Your task to perform on an android device: Open calendar and show me the second week of next month Image 0: 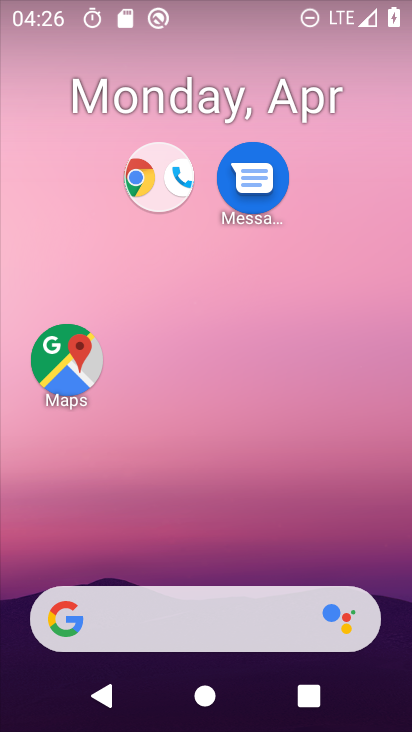
Step 0: drag from (144, 540) to (109, 1)
Your task to perform on an android device: Open calendar and show me the second week of next month Image 1: 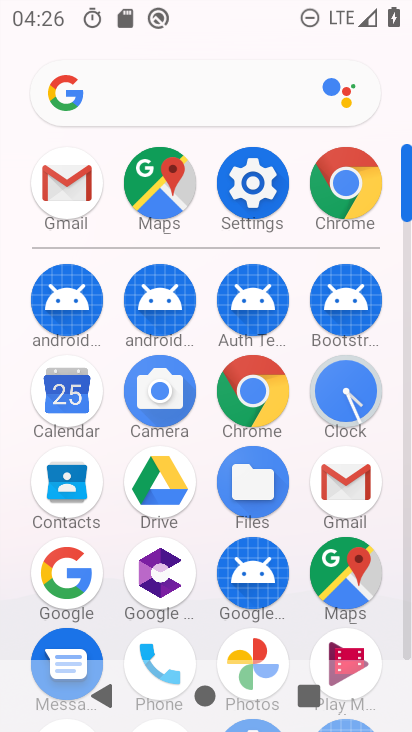
Step 1: click (58, 384)
Your task to perform on an android device: Open calendar and show me the second week of next month Image 2: 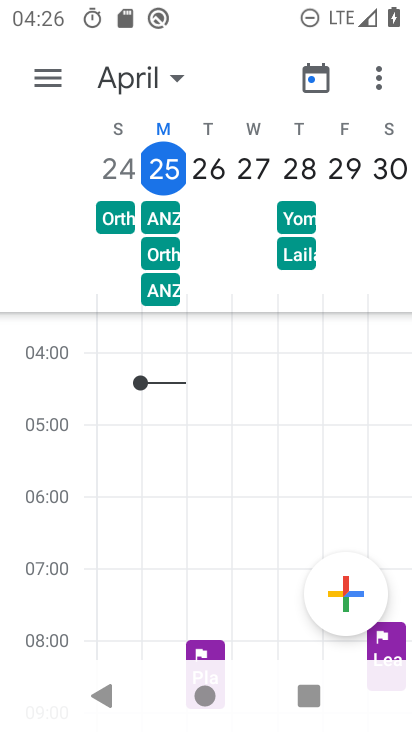
Step 2: click (168, 73)
Your task to perform on an android device: Open calendar and show me the second week of next month Image 3: 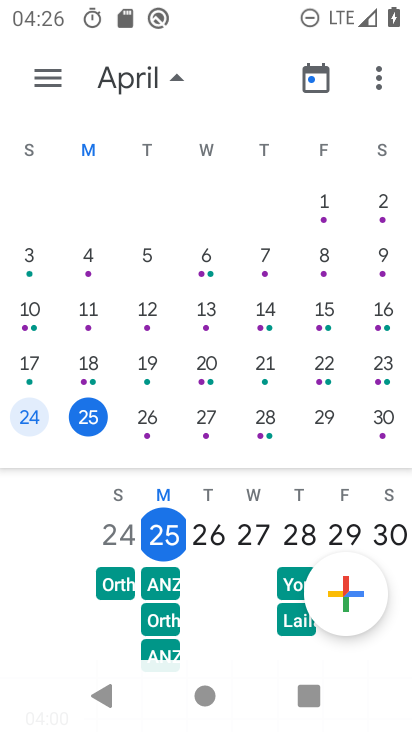
Step 3: drag from (363, 374) to (33, 412)
Your task to perform on an android device: Open calendar and show me the second week of next month Image 4: 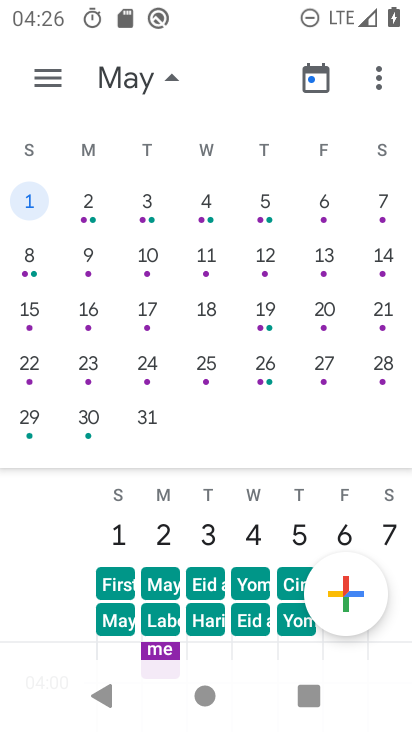
Step 4: click (266, 256)
Your task to perform on an android device: Open calendar and show me the second week of next month Image 5: 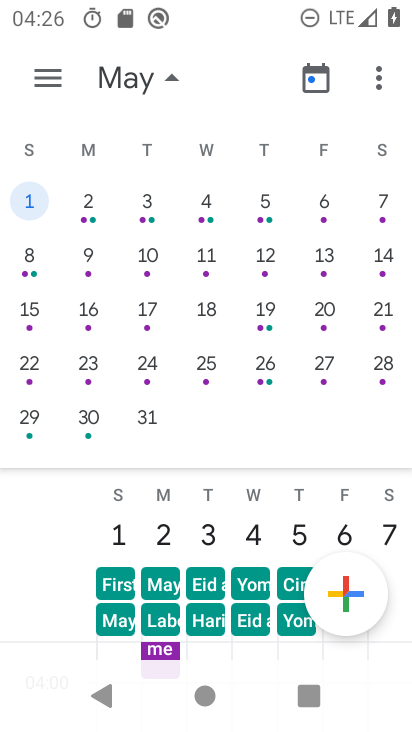
Step 5: click (266, 256)
Your task to perform on an android device: Open calendar and show me the second week of next month Image 6: 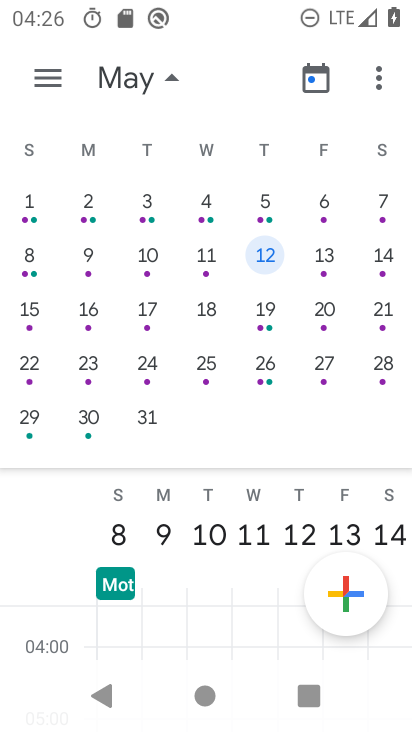
Step 6: task complete